Your task to perform on an android device: turn off sleep mode Image 0: 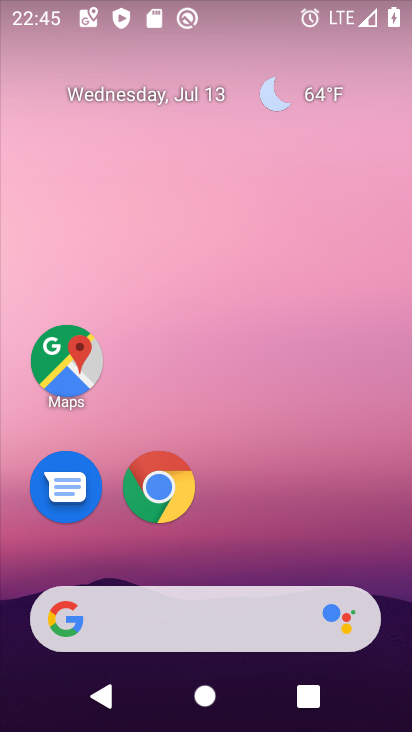
Step 0: drag from (292, 567) to (313, 35)
Your task to perform on an android device: turn off sleep mode Image 1: 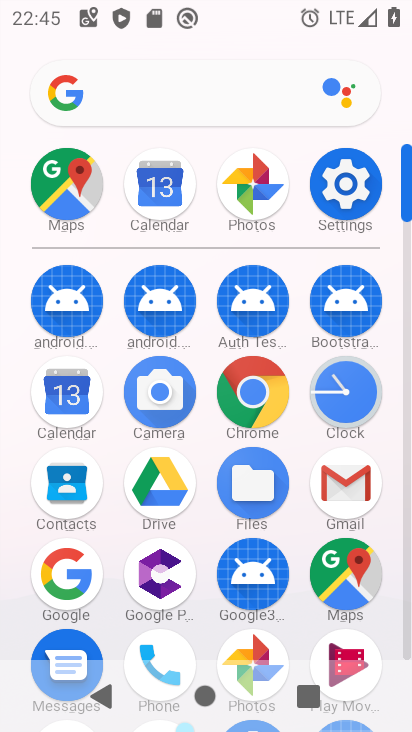
Step 1: click (365, 180)
Your task to perform on an android device: turn off sleep mode Image 2: 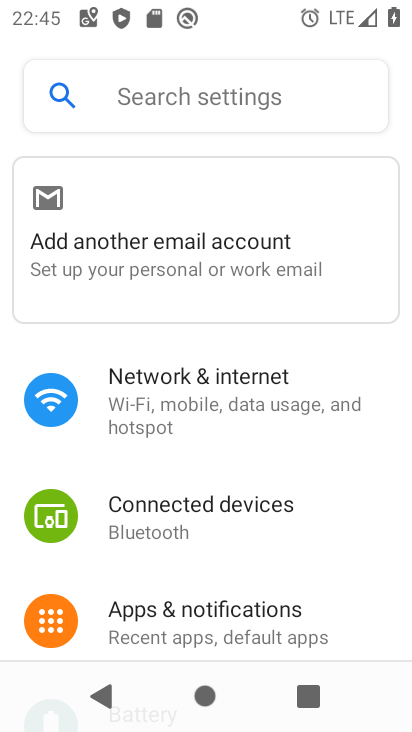
Step 2: click (206, 84)
Your task to perform on an android device: turn off sleep mode Image 3: 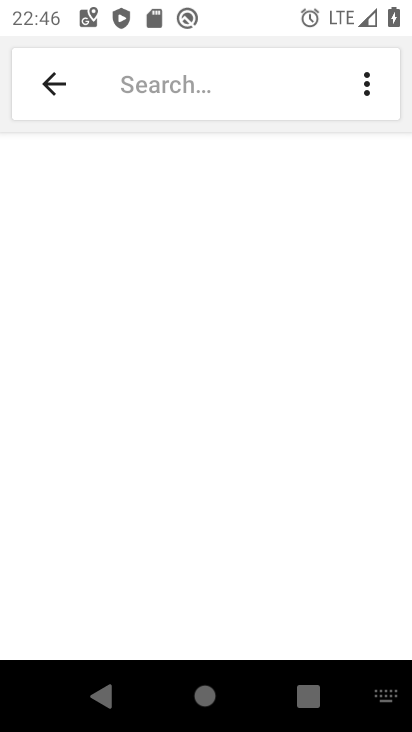
Step 3: type "sleep mode"
Your task to perform on an android device: turn off sleep mode Image 4: 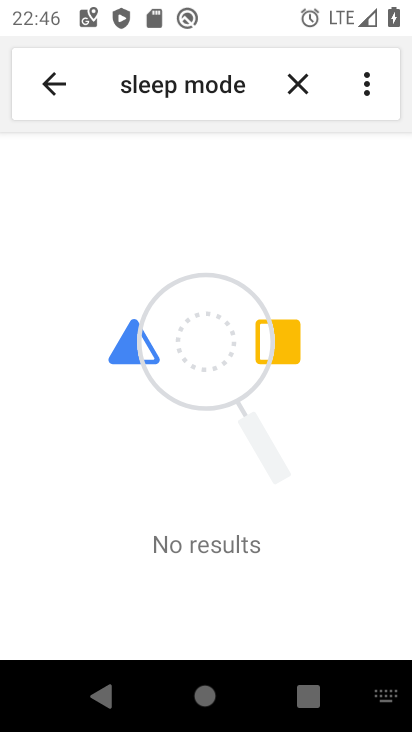
Step 4: task complete